Your task to perform on an android device: Add "dell alienware" to the cart on target Image 0: 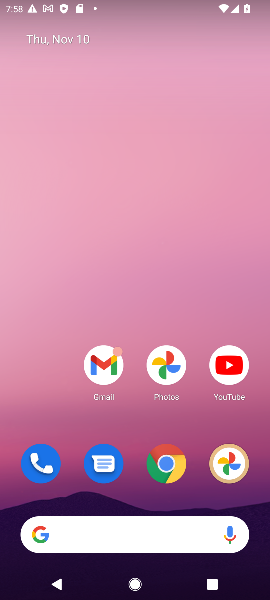
Step 0: click (170, 469)
Your task to perform on an android device: Add "dell alienware" to the cart on target Image 1: 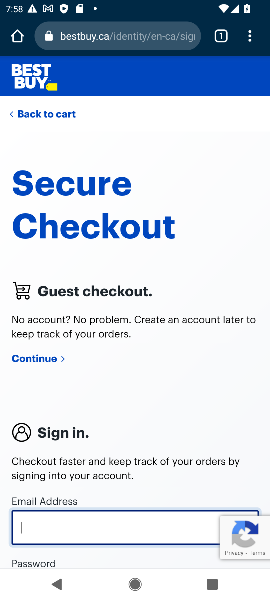
Step 1: click (139, 37)
Your task to perform on an android device: Add "dell alienware" to the cart on target Image 2: 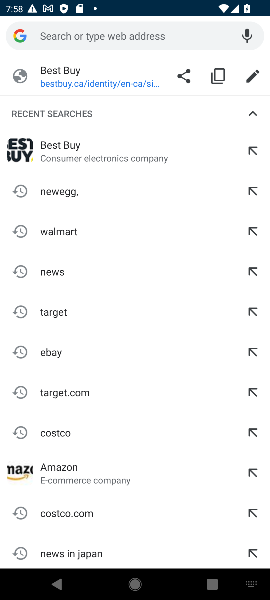
Step 2: click (55, 310)
Your task to perform on an android device: Add "dell alienware" to the cart on target Image 3: 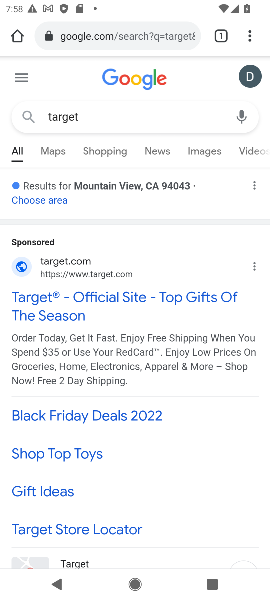
Step 3: click (44, 296)
Your task to perform on an android device: Add "dell alienware" to the cart on target Image 4: 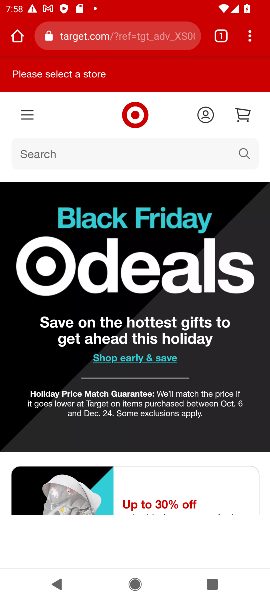
Step 4: click (95, 154)
Your task to perform on an android device: Add "dell alienware" to the cart on target Image 5: 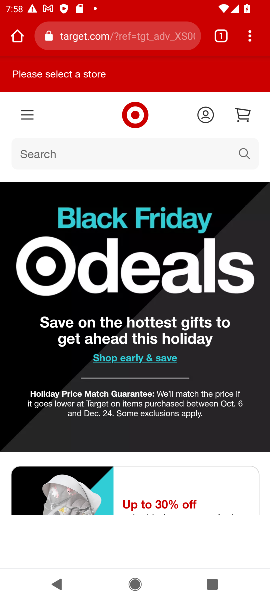
Step 5: click (32, 147)
Your task to perform on an android device: Add "dell alienware" to the cart on target Image 6: 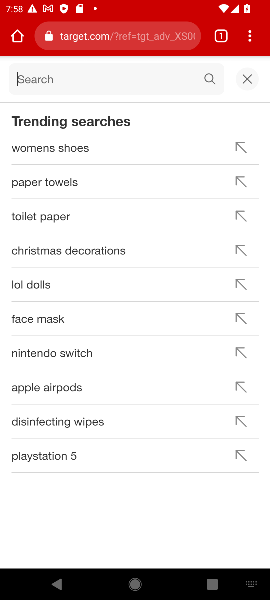
Step 6: type "dell alienware"
Your task to perform on an android device: Add "dell alienware" to the cart on target Image 7: 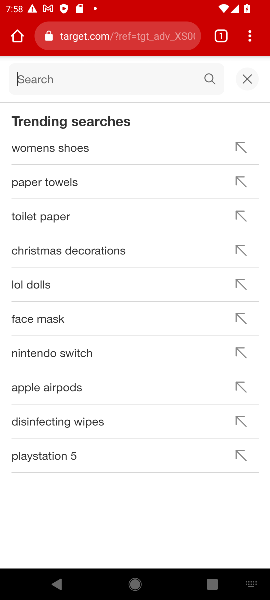
Step 7: press enter
Your task to perform on an android device: Add "dell alienware" to the cart on target Image 8: 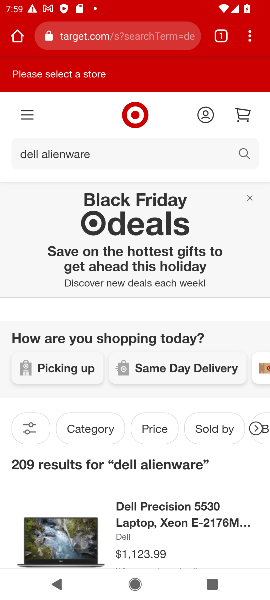
Step 8: task complete